Your task to perform on an android device: Check the weather Image 0: 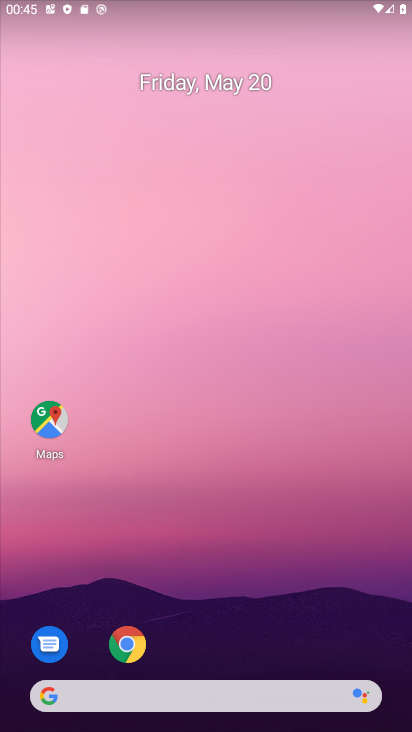
Step 0: click (97, 688)
Your task to perform on an android device: Check the weather Image 1: 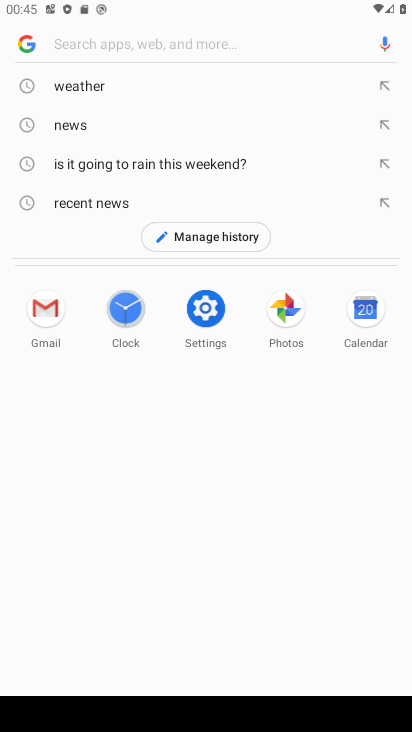
Step 1: click (95, 85)
Your task to perform on an android device: Check the weather Image 2: 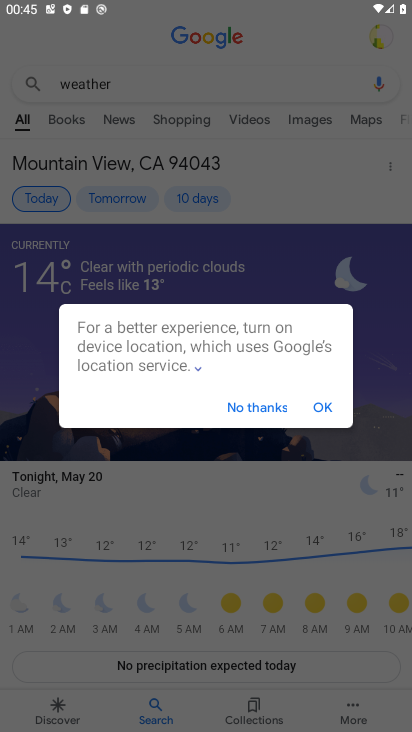
Step 2: click (236, 406)
Your task to perform on an android device: Check the weather Image 3: 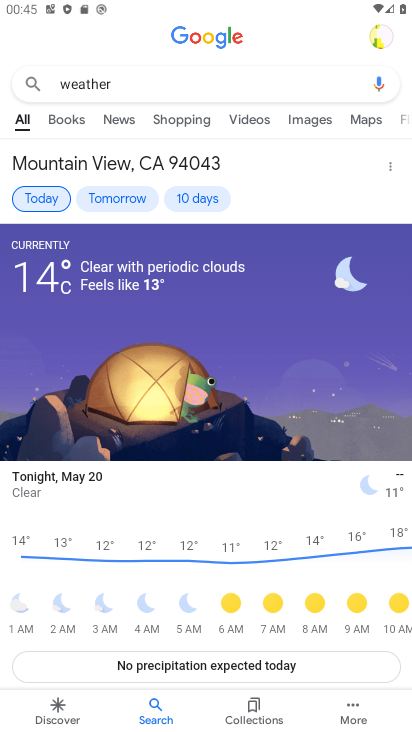
Step 3: task complete